Your task to perform on an android device: Open the map Image 0: 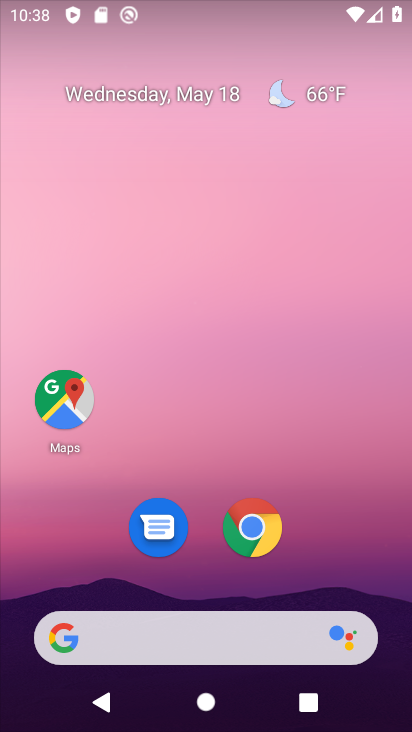
Step 0: click (65, 393)
Your task to perform on an android device: Open the map Image 1: 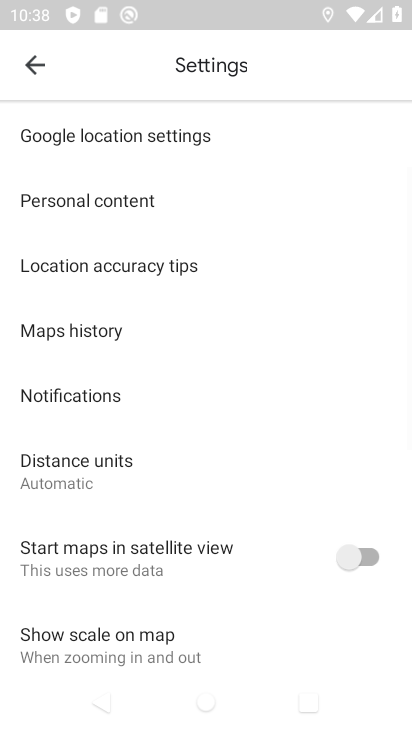
Step 1: click (41, 64)
Your task to perform on an android device: Open the map Image 2: 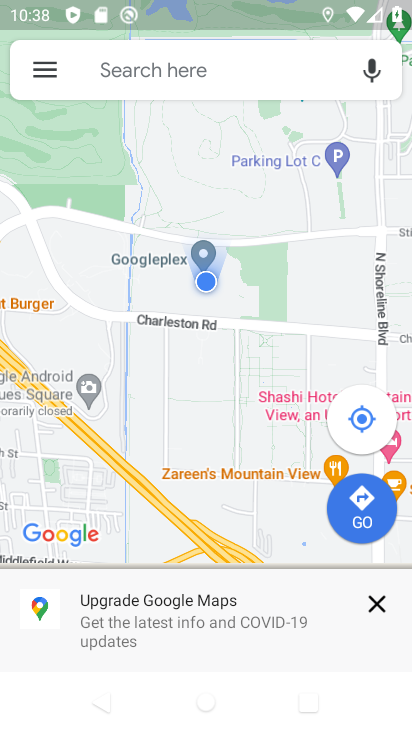
Step 2: task complete